Your task to perform on an android device: turn smart compose on in the gmail app Image 0: 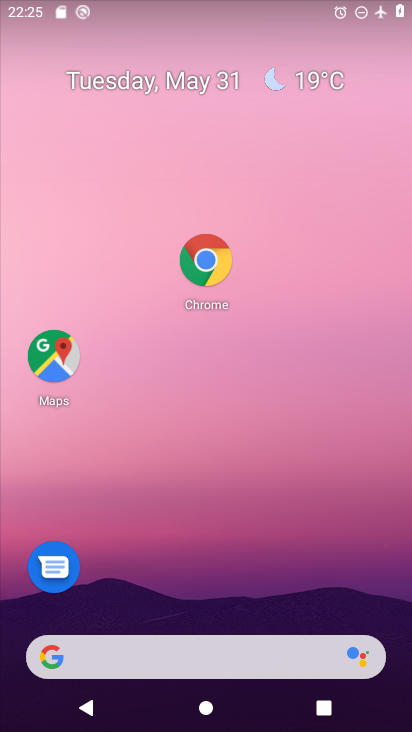
Step 0: drag from (274, 563) to (379, 217)
Your task to perform on an android device: turn smart compose on in the gmail app Image 1: 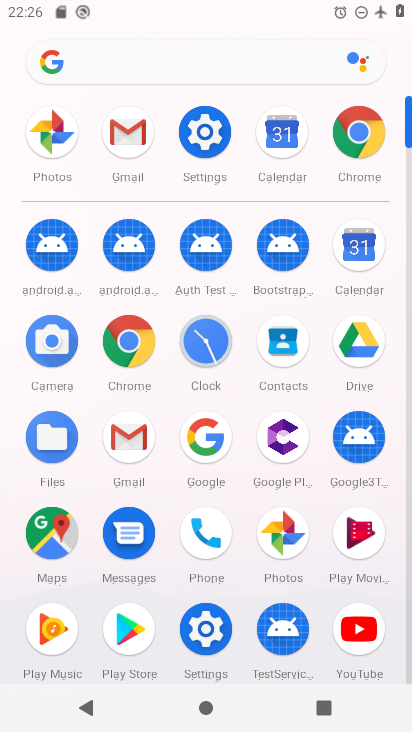
Step 1: click (139, 452)
Your task to perform on an android device: turn smart compose on in the gmail app Image 2: 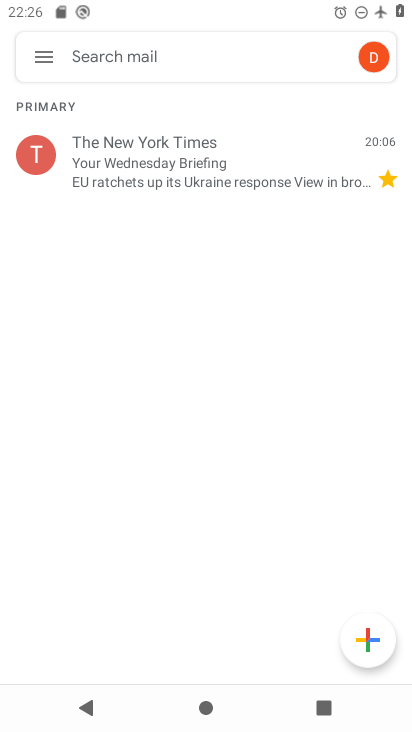
Step 2: click (48, 48)
Your task to perform on an android device: turn smart compose on in the gmail app Image 3: 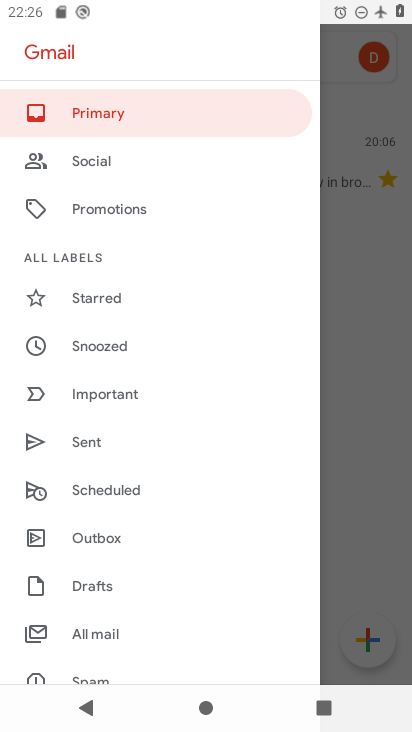
Step 3: drag from (101, 661) to (150, 145)
Your task to perform on an android device: turn smart compose on in the gmail app Image 4: 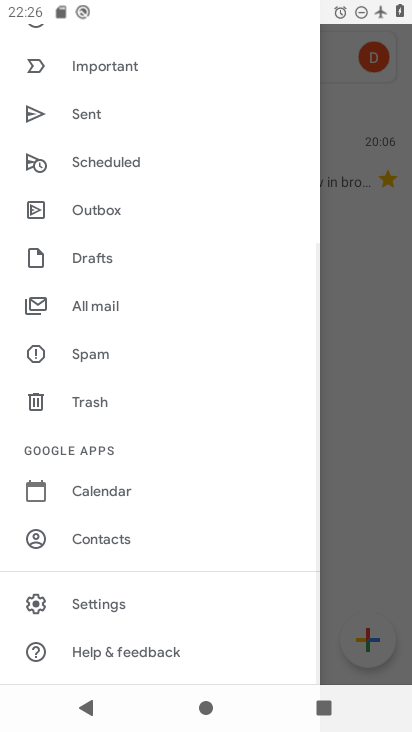
Step 4: click (116, 600)
Your task to perform on an android device: turn smart compose on in the gmail app Image 5: 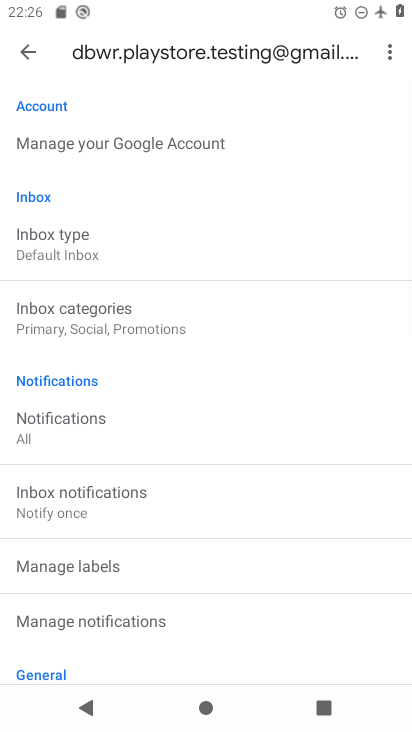
Step 5: task complete